Your task to perform on an android device: Open Google Chrome and open the bookmarks view Image 0: 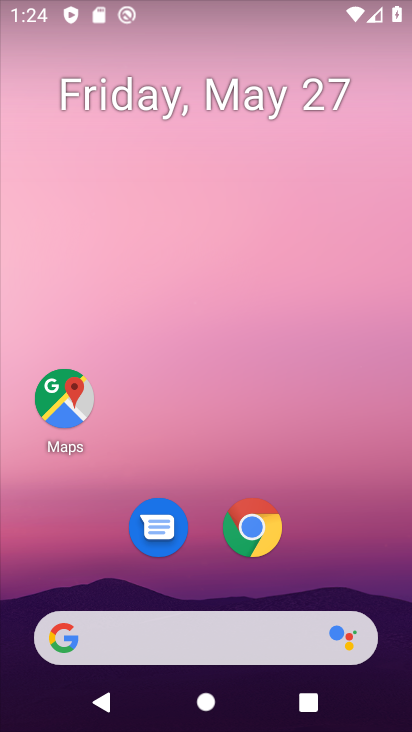
Step 0: click (256, 533)
Your task to perform on an android device: Open Google Chrome and open the bookmarks view Image 1: 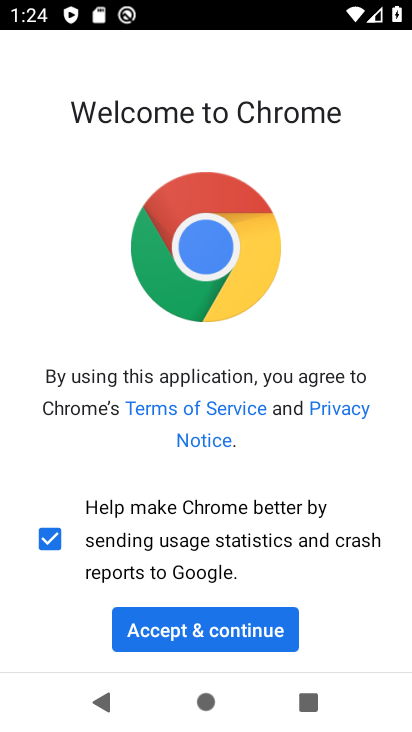
Step 1: drag from (203, 623) to (160, 622)
Your task to perform on an android device: Open Google Chrome and open the bookmarks view Image 2: 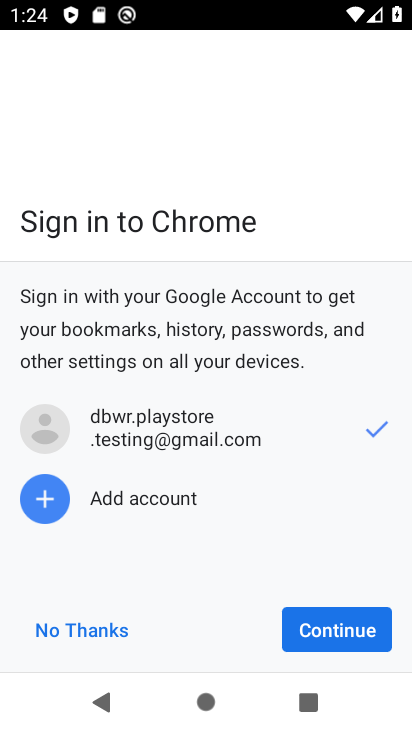
Step 2: click (348, 632)
Your task to perform on an android device: Open Google Chrome and open the bookmarks view Image 3: 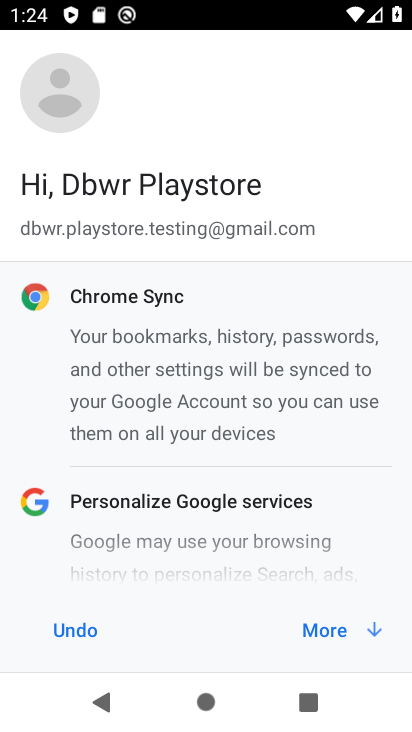
Step 3: click (323, 611)
Your task to perform on an android device: Open Google Chrome and open the bookmarks view Image 4: 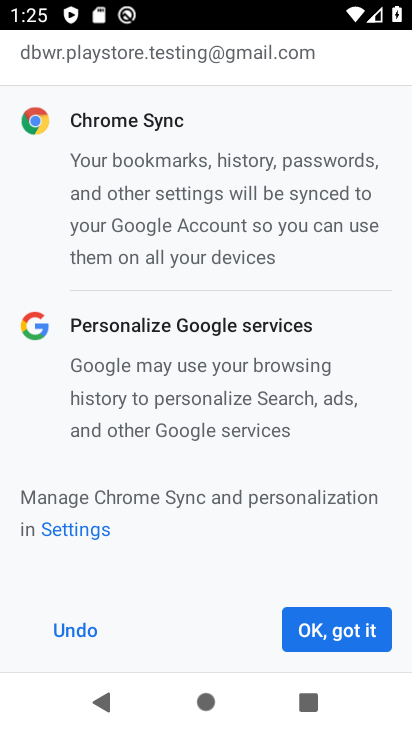
Step 4: click (342, 631)
Your task to perform on an android device: Open Google Chrome and open the bookmarks view Image 5: 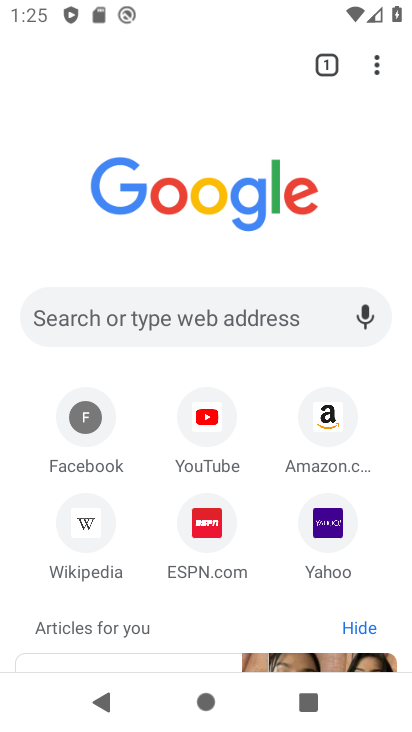
Step 5: click (375, 68)
Your task to perform on an android device: Open Google Chrome and open the bookmarks view Image 6: 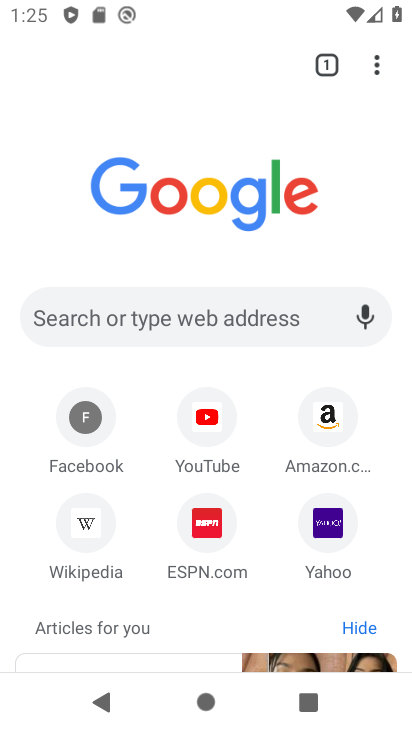
Step 6: click (375, 68)
Your task to perform on an android device: Open Google Chrome and open the bookmarks view Image 7: 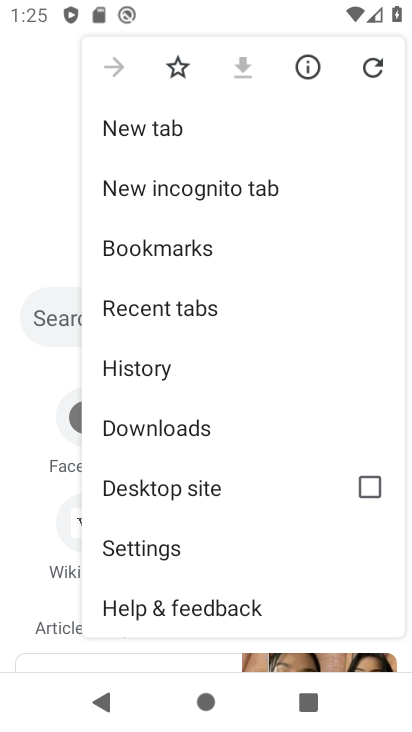
Step 7: click (176, 258)
Your task to perform on an android device: Open Google Chrome and open the bookmarks view Image 8: 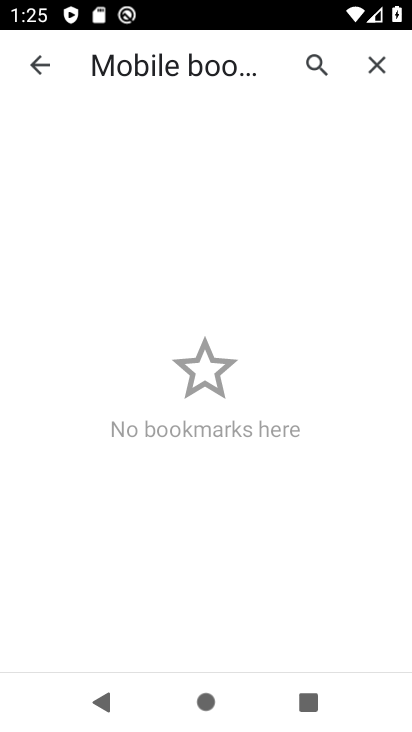
Step 8: task complete